Your task to perform on an android device: Go to display settings Image 0: 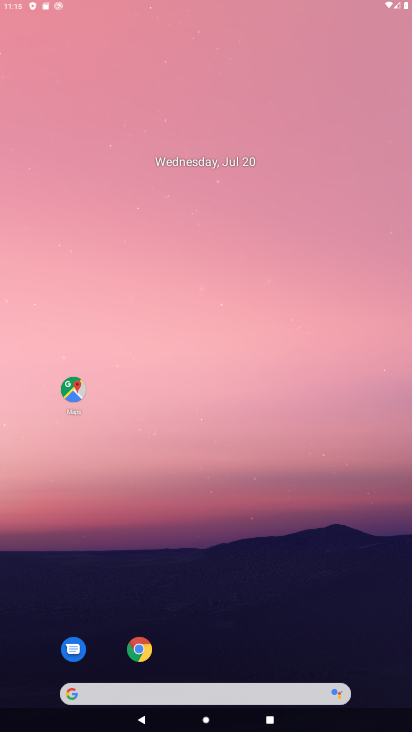
Step 0: press home button
Your task to perform on an android device: Go to display settings Image 1: 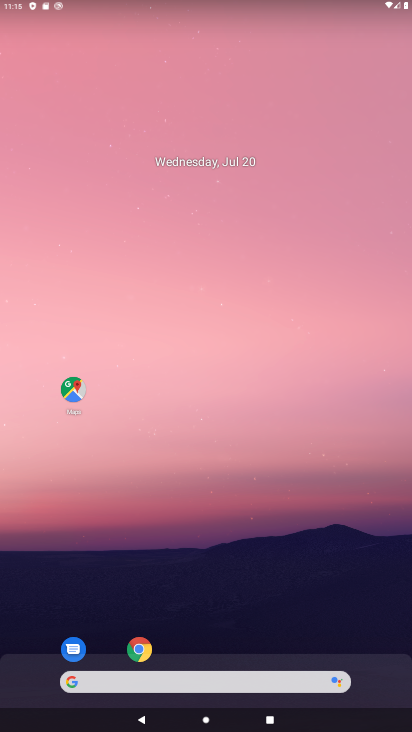
Step 1: drag from (247, 633) to (264, 111)
Your task to perform on an android device: Go to display settings Image 2: 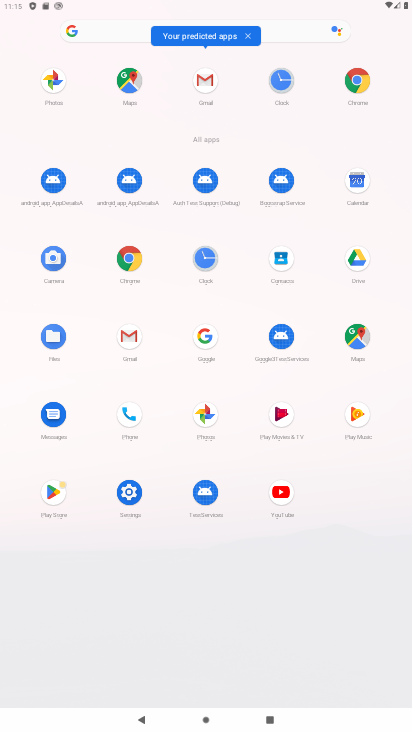
Step 2: click (125, 493)
Your task to perform on an android device: Go to display settings Image 3: 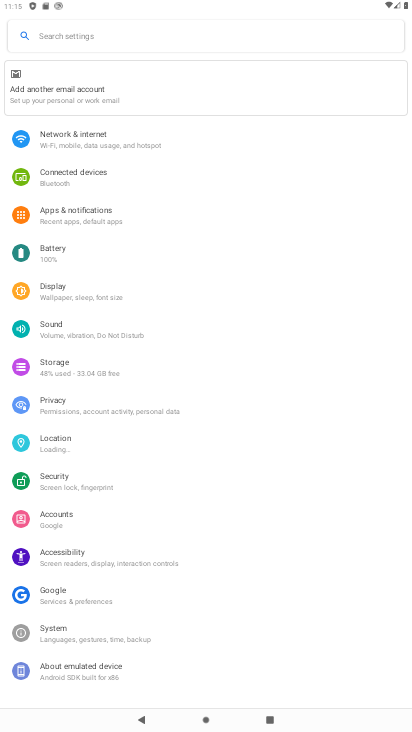
Step 3: click (63, 295)
Your task to perform on an android device: Go to display settings Image 4: 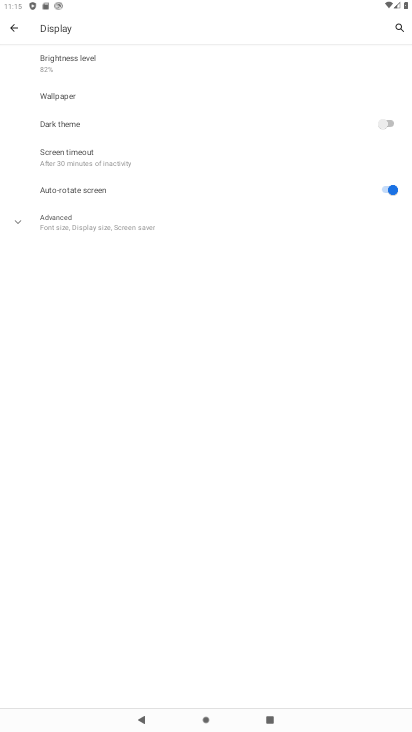
Step 4: task complete